Your task to perform on an android device: turn off wifi Image 0: 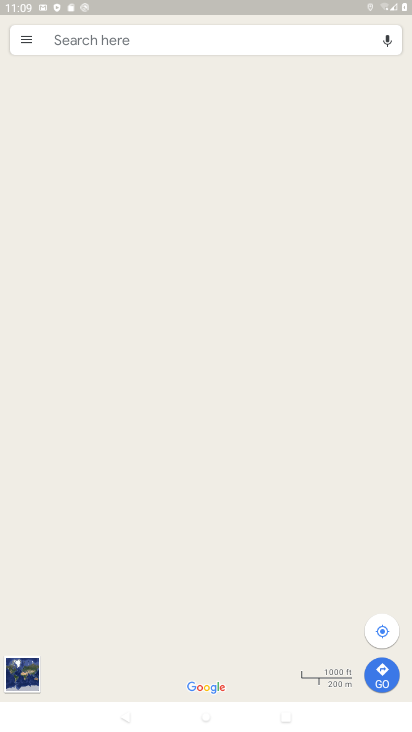
Step 0: press home button
Your task to perform on an android device: turn off wifi Image 1: 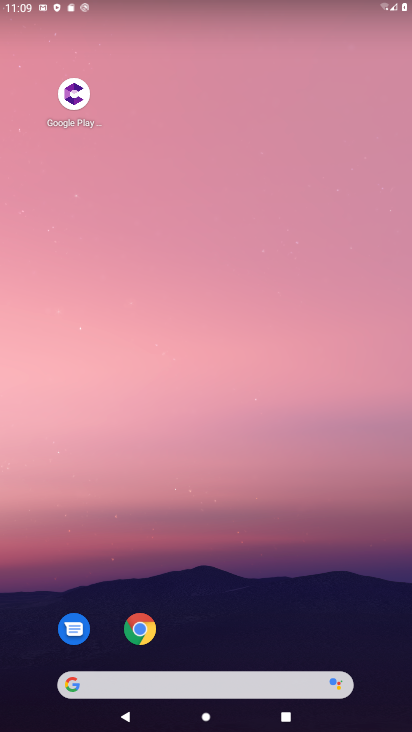
Step 1: drag from (239, 625) to (190, 0)
Your task to perform on an android device: turn off wifi Image 2: 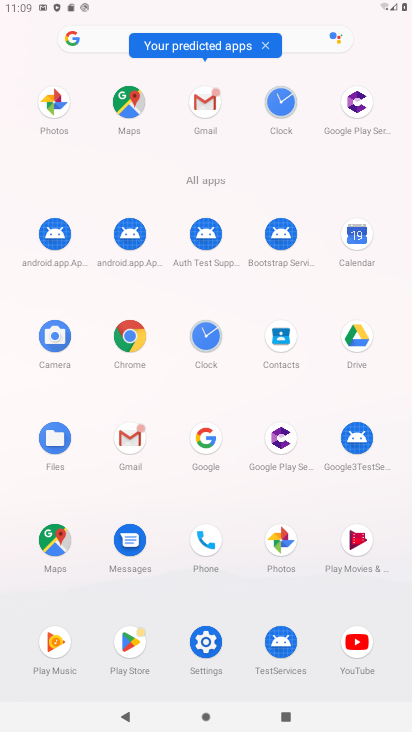
Step 2: click (214, 649)
Your task to perform on an android device: turn off wifi Image 3: 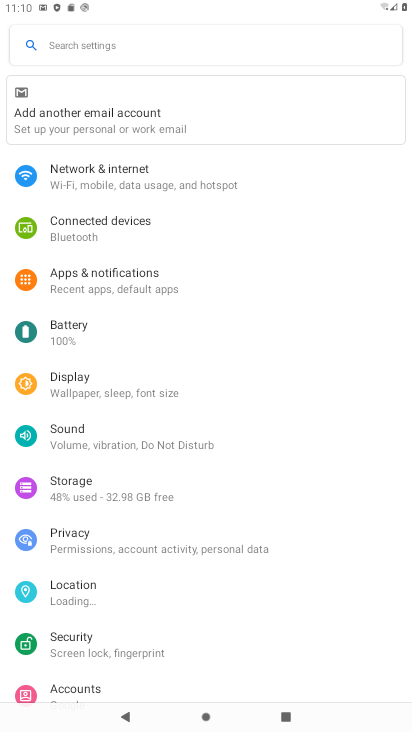
Step 3: click (105, 160)
Your task to perform on an android device: turn off wifi Image 4: 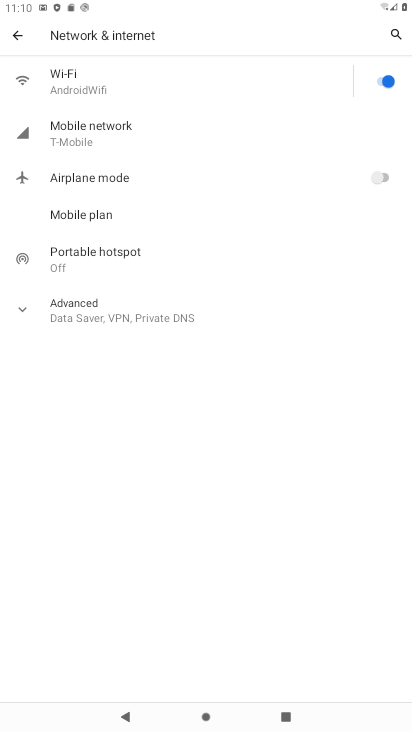
Step 4: click (56, 76)
Your task to perform on an android device: turn off wifi Image 5: 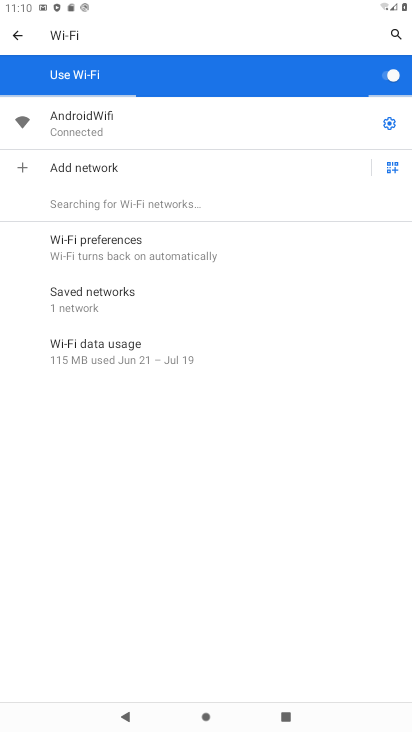
Step 5: task complete